Your task to perform on an android device: turn off translation in the chrome app Image 0: 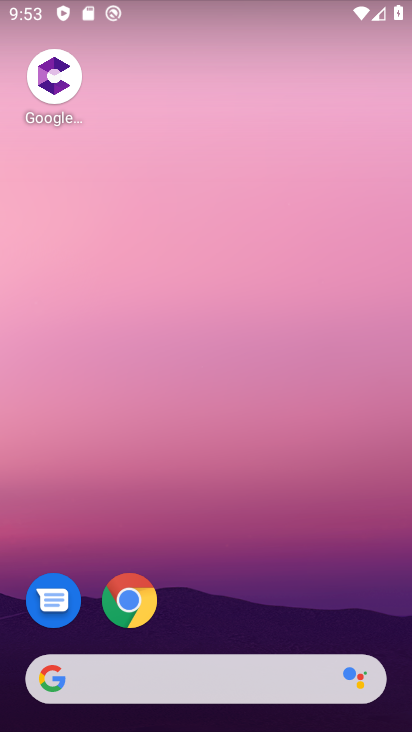
Step 0: click (132, 609)
Your task to perform on an android device: turn off translation in the chrome app Image 1: 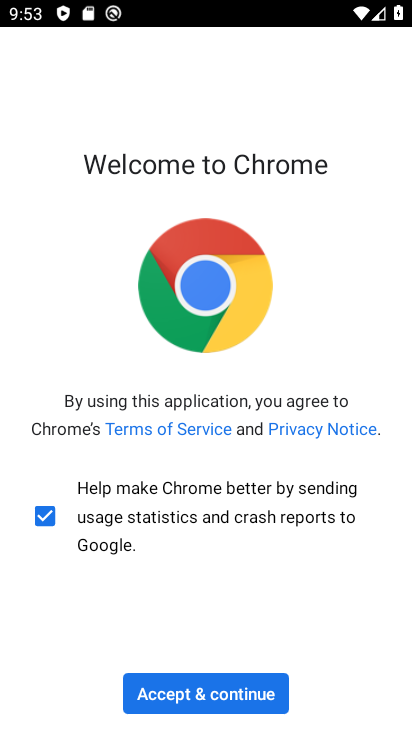
Step 1: click (204, 700)
Your task to perform on an android device: turn off translation in the chrome app Image 2: 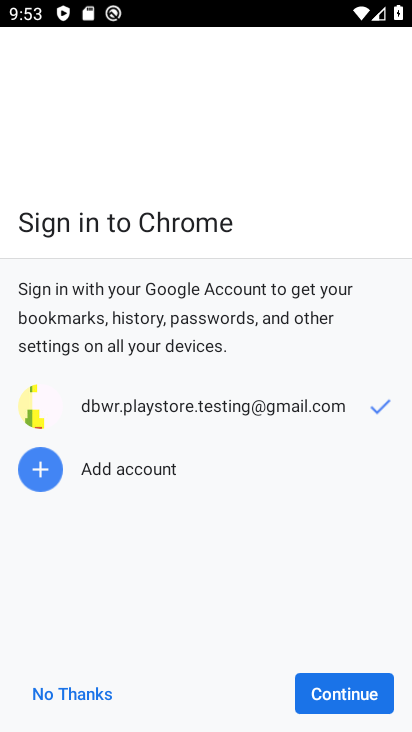
Step 2: click (311, 691)
Your task to perform on an android device: turn off translation in the chrome app Image 3: 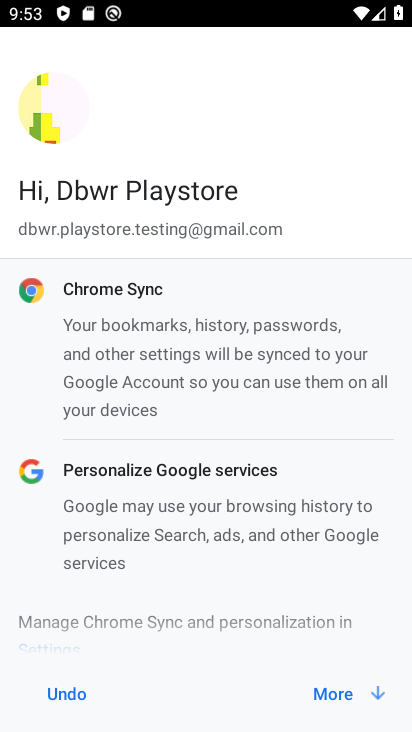
Step 3: click (311, 691)
Your task to perform on an android device: turn off translation in the chrome app Image 4: 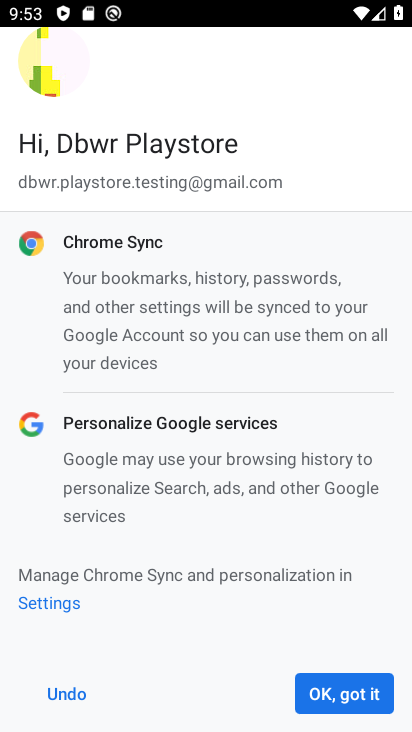
Step 4: click (347, 703)
Your task to perform on an android device: turn off translation in the chrome app Image 5: 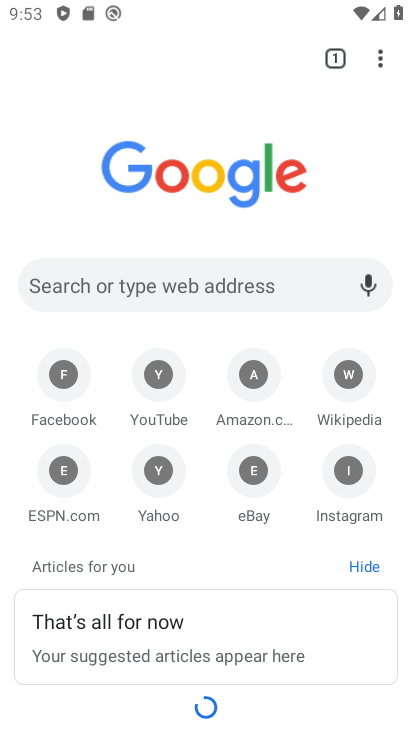
Step 5: click (378, 51)
Your task to perform on an android device: turn off translation in the chrome app Image 6: 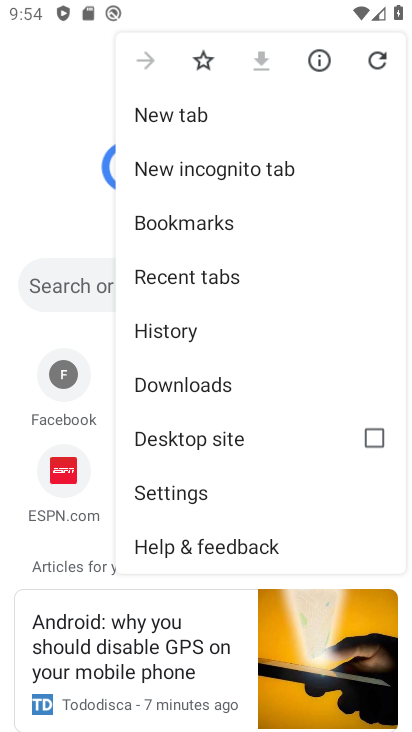
Step 6: click (182, 493)
Your task to perform on an android device: turn off translation in the chrome app Image 7: 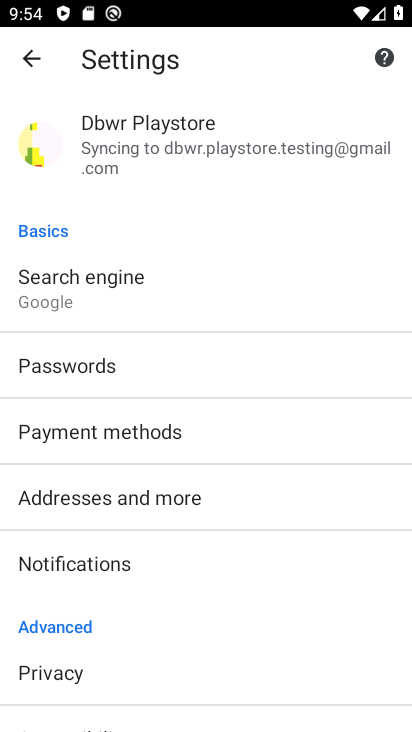
Step 7: drag from (212, 298) to (146, 121)
Your task to perform on an android device: turn off translation in the chrome app Image 8: 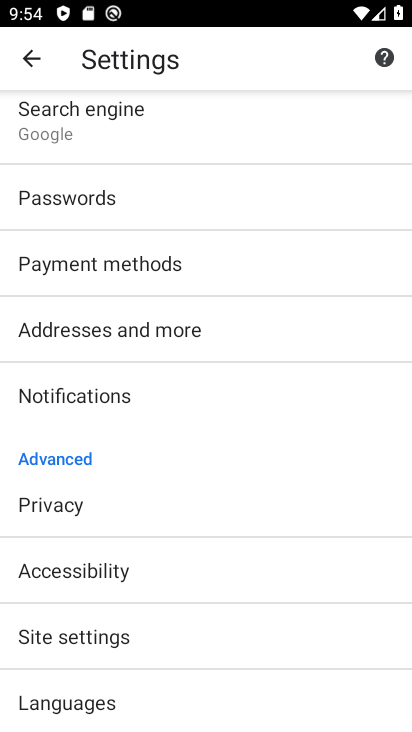
Step 8: click (71, 703)
Your task to perform on an android device: turn off translation in the chrome app Image 9: 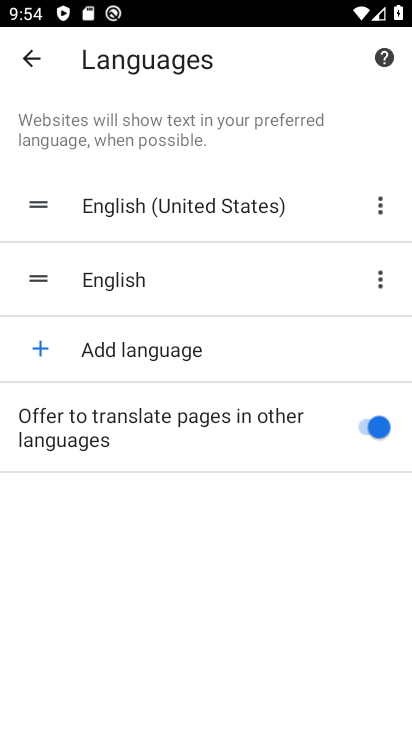
Step 9: click (383, 420)
Your task to perform on an android device: turn off translation in the chrome app Image 10: 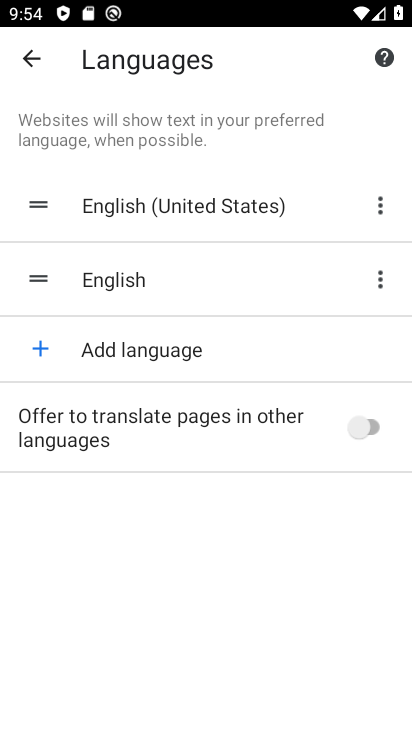
Step 10: task complete